Your task to perform on an android device: Open Google Chrome and open the bookmarks view Image 0: 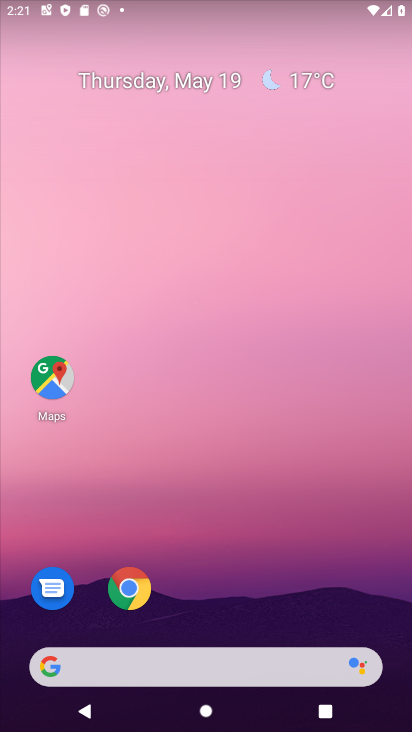
Step 0: click (131, 588)
Your task to perform on an android device: Open Google Chrome and open the bookmarks view Image 1: 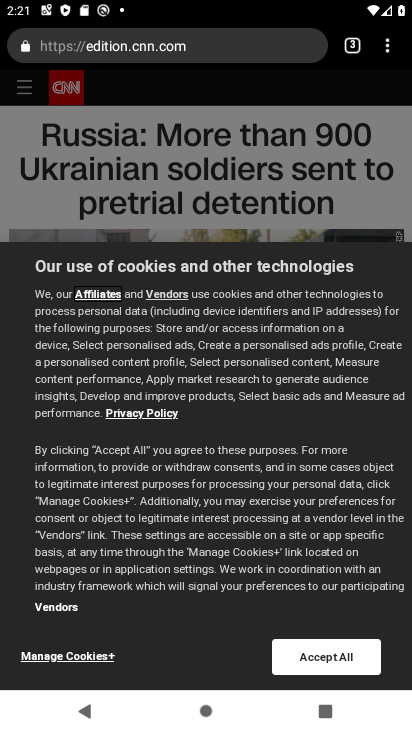
Step 1: task complete